Your task to perform on an android device: Search for the best-rated coffee table on Crate & Barrel Image 0: 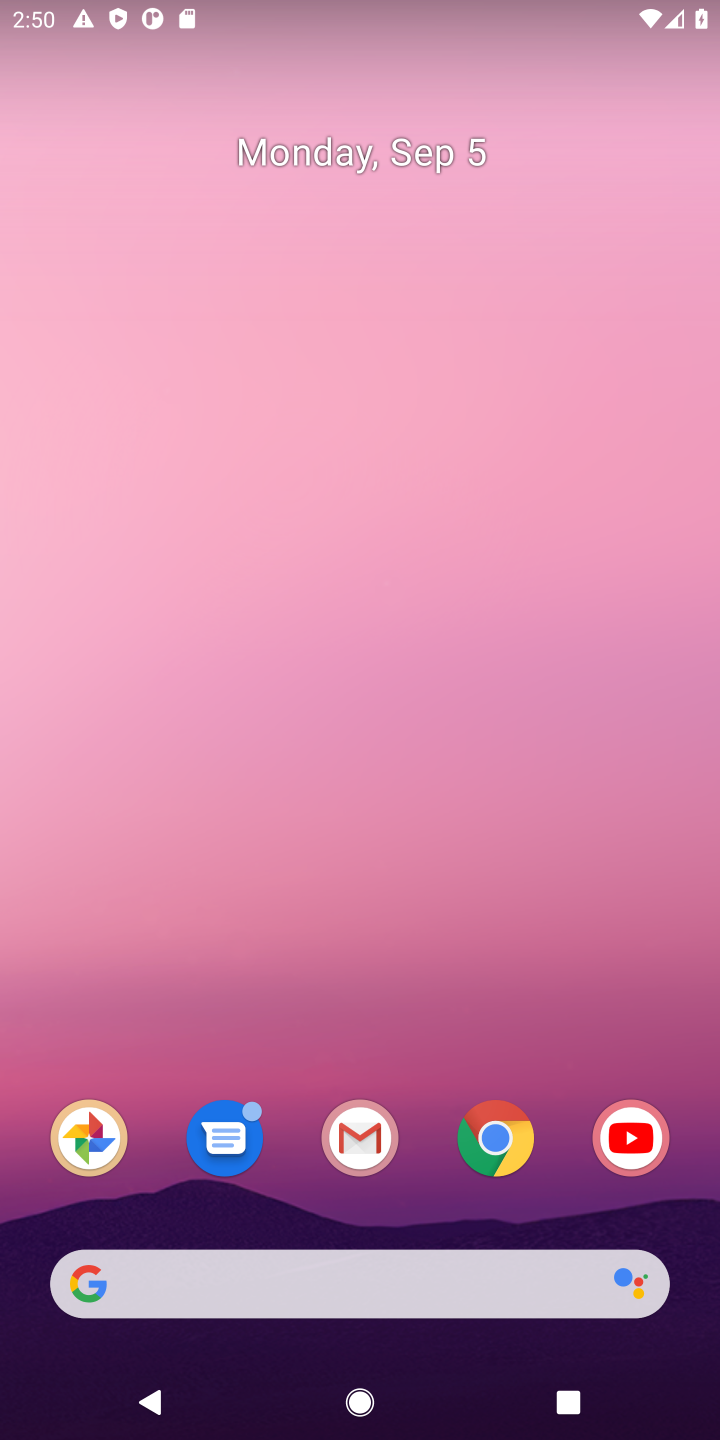
Step 0: click (497, 1141)
Your task to perform on an android device: Search for the best-rated coffee table on Crate & Barrel Image 1: 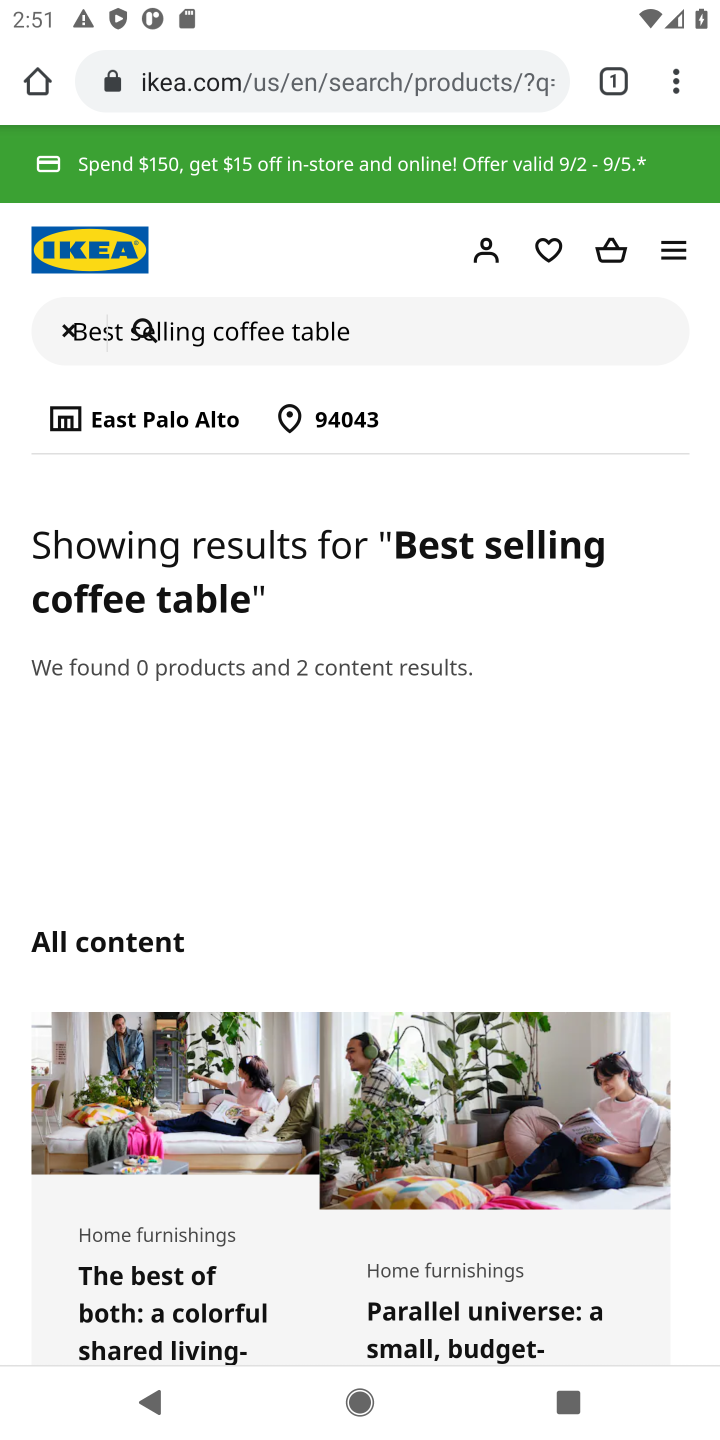
Step 1: click (410, 84)
Your task to perform on an android device: Search for the best-rated coffee table on Crate & Barrel Image 2: 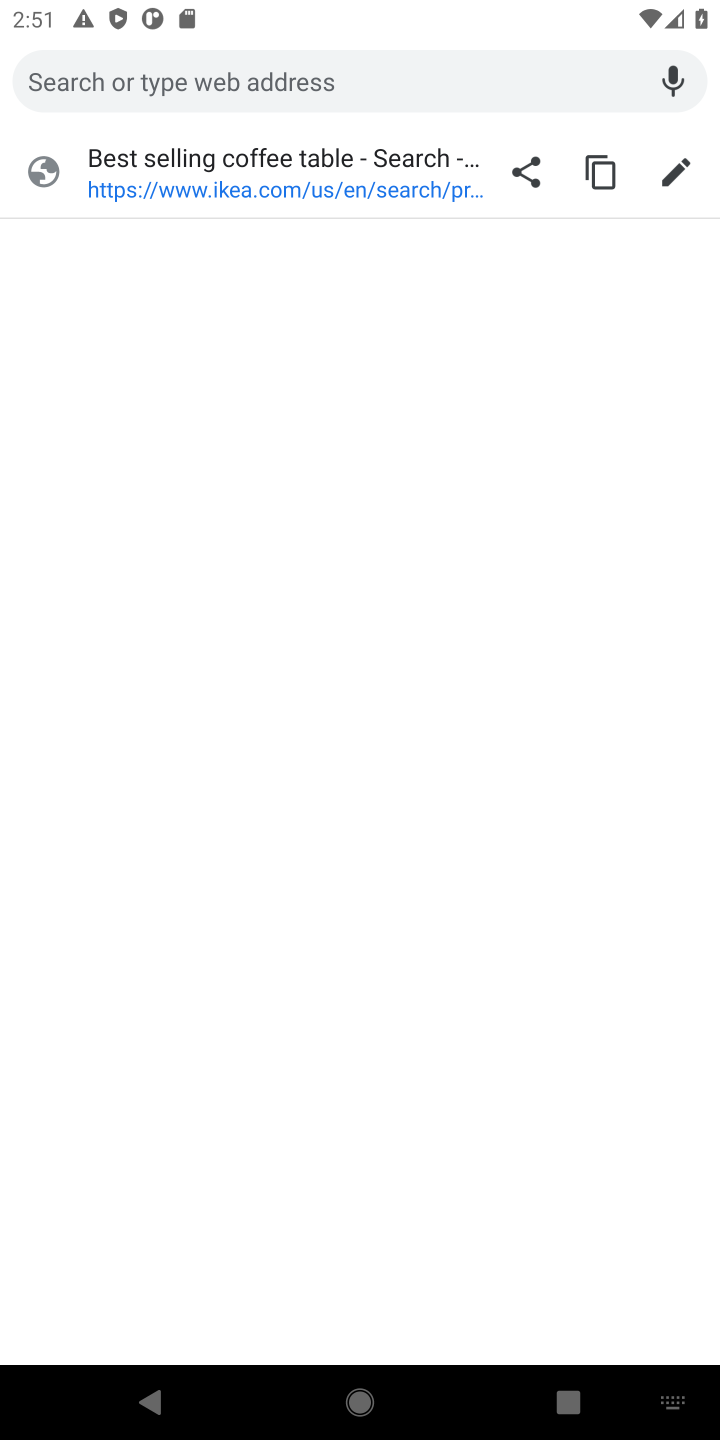
Step 2: type "Crate & Barrel"
Your task to perform on an android device: Search for the best-rated coffee table on Crate & Barrel Image 3: 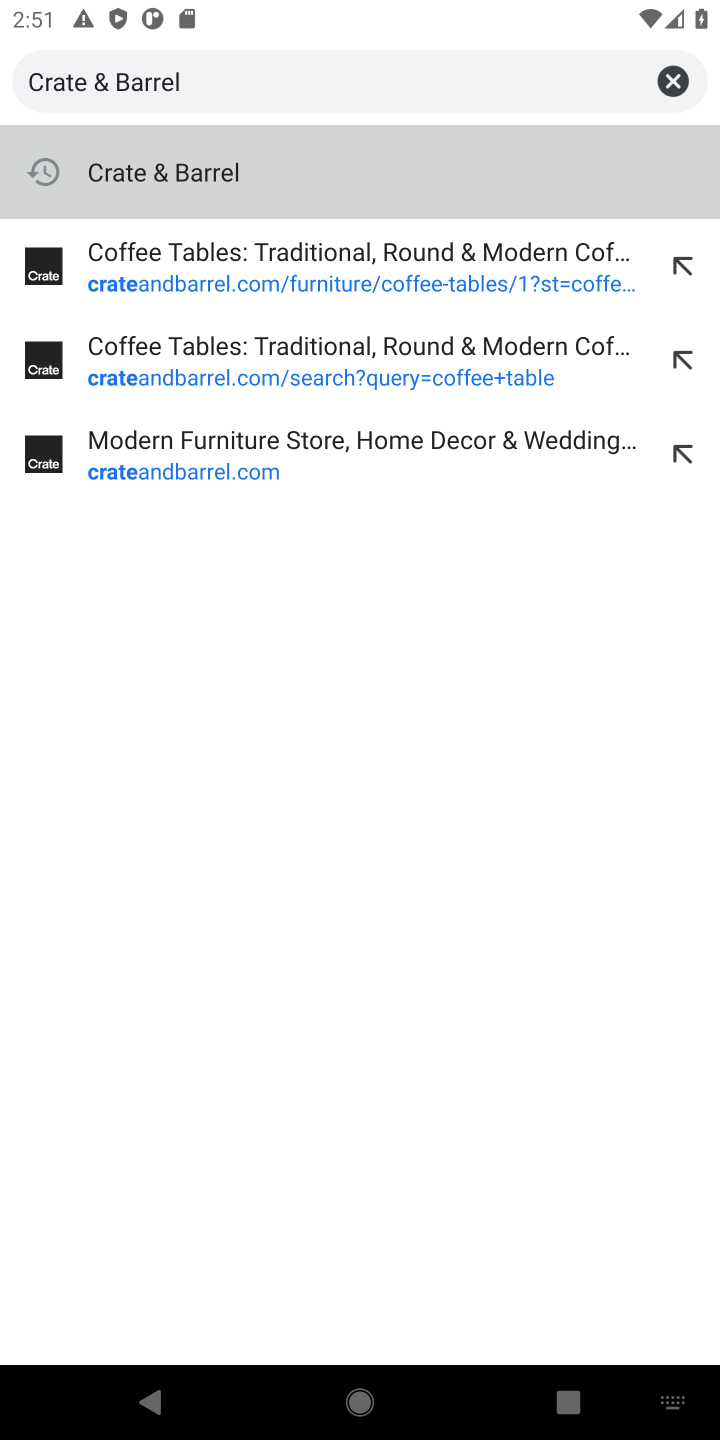
Step 3: click (410, 191)
Your task to perform on an android device: Search for the best-rated coffee table on Crate & Barrel Image 4: 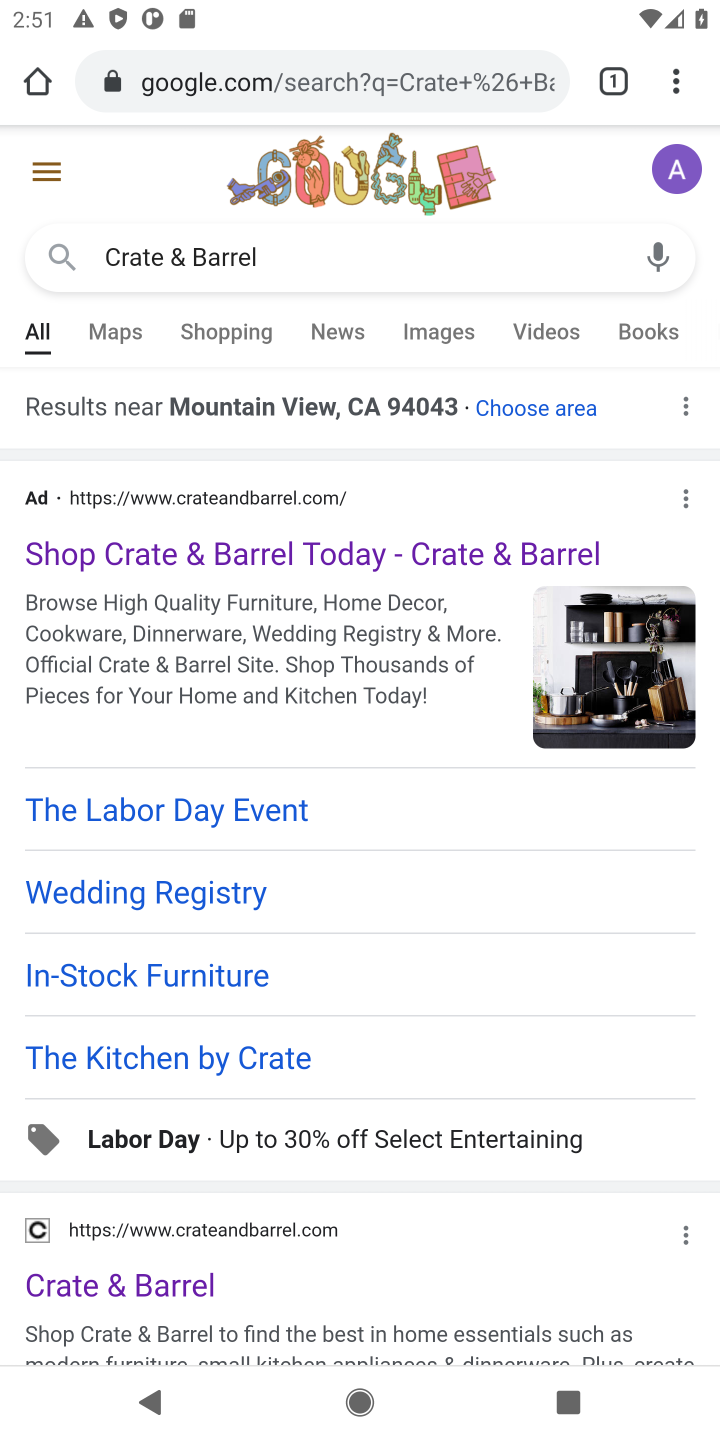
Step 4: click (255, 1298)
Your task to perform on an android device: Search for the best-rated coffee table on Crate & Barrel Image 5: 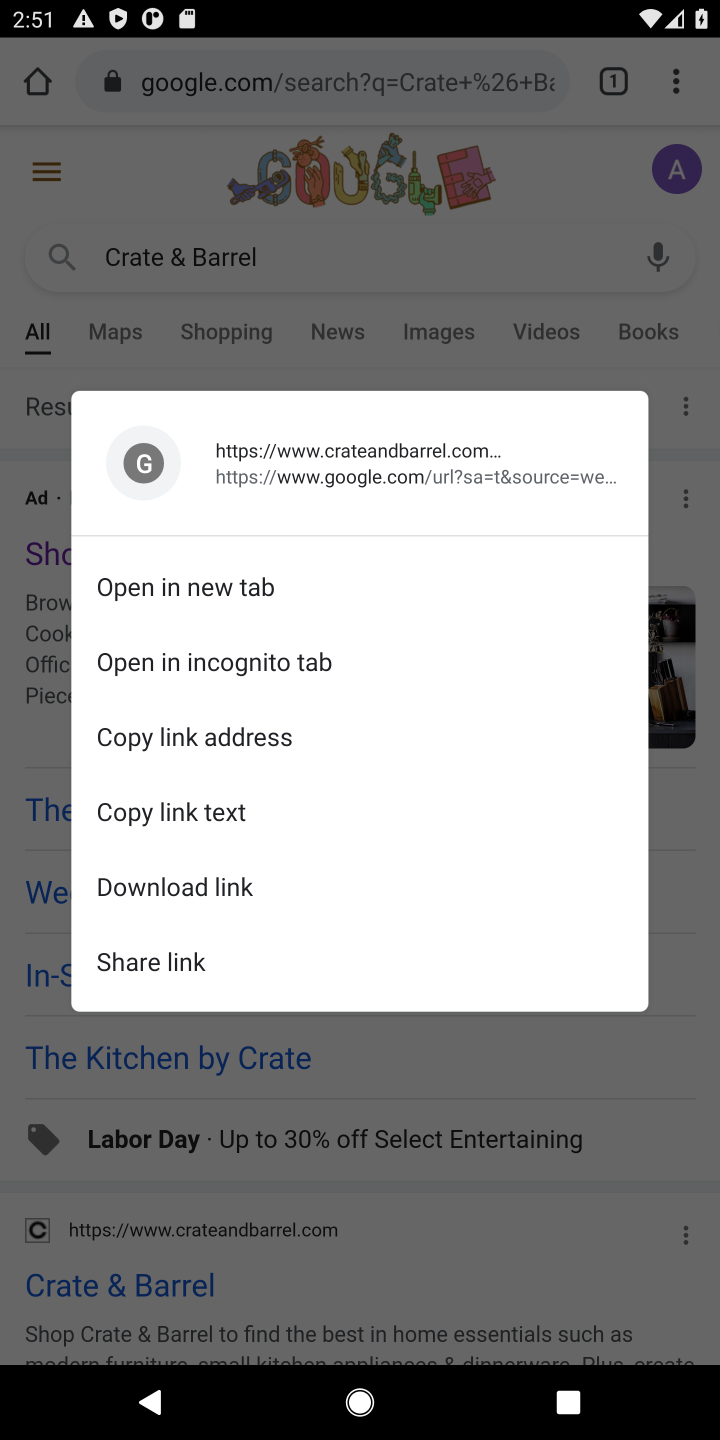
Step 5: click (256, 1295)
Your task to perform on an android device: Search for the best-rated coffee table on Crate & Barrel Image 6: 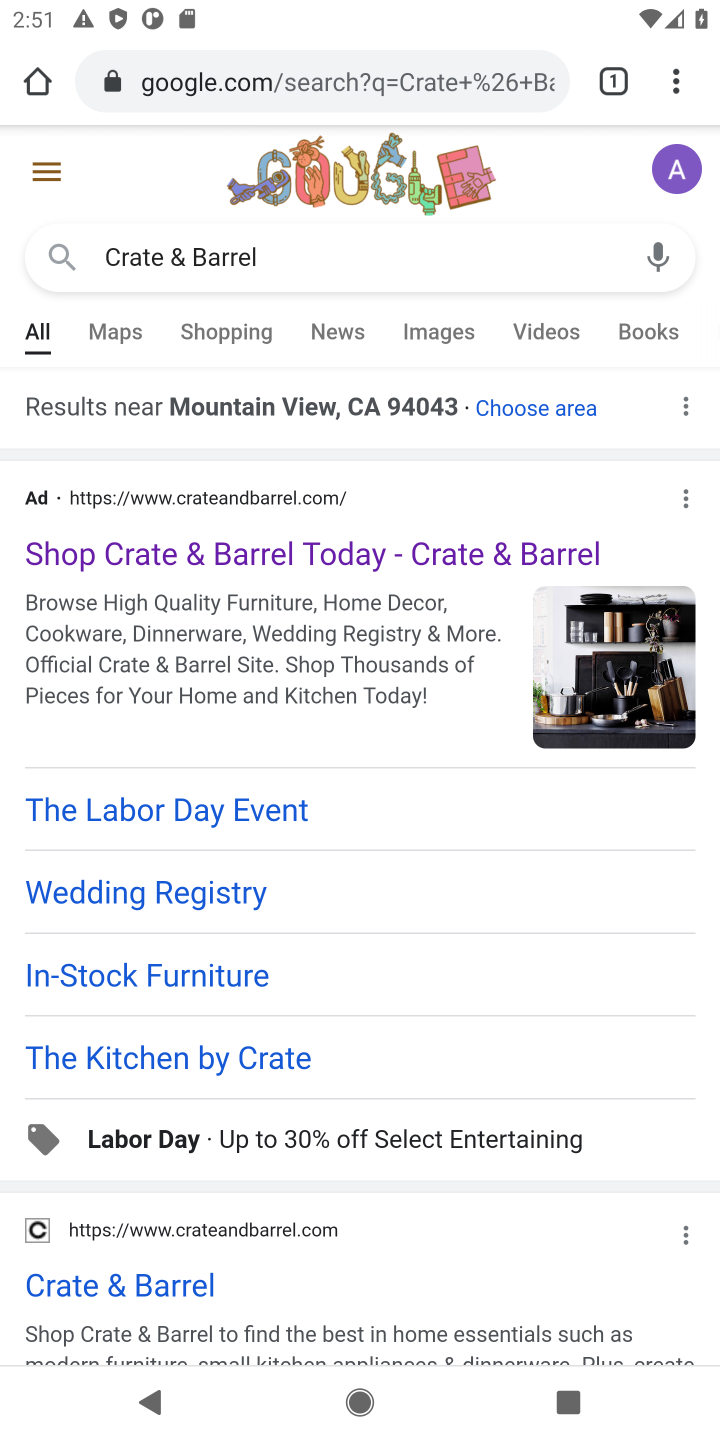
Step 6: click (256, 1295)
Your task to perform on an android device: Search for the best-rated coffee table on Crate & Barrel Image 7: 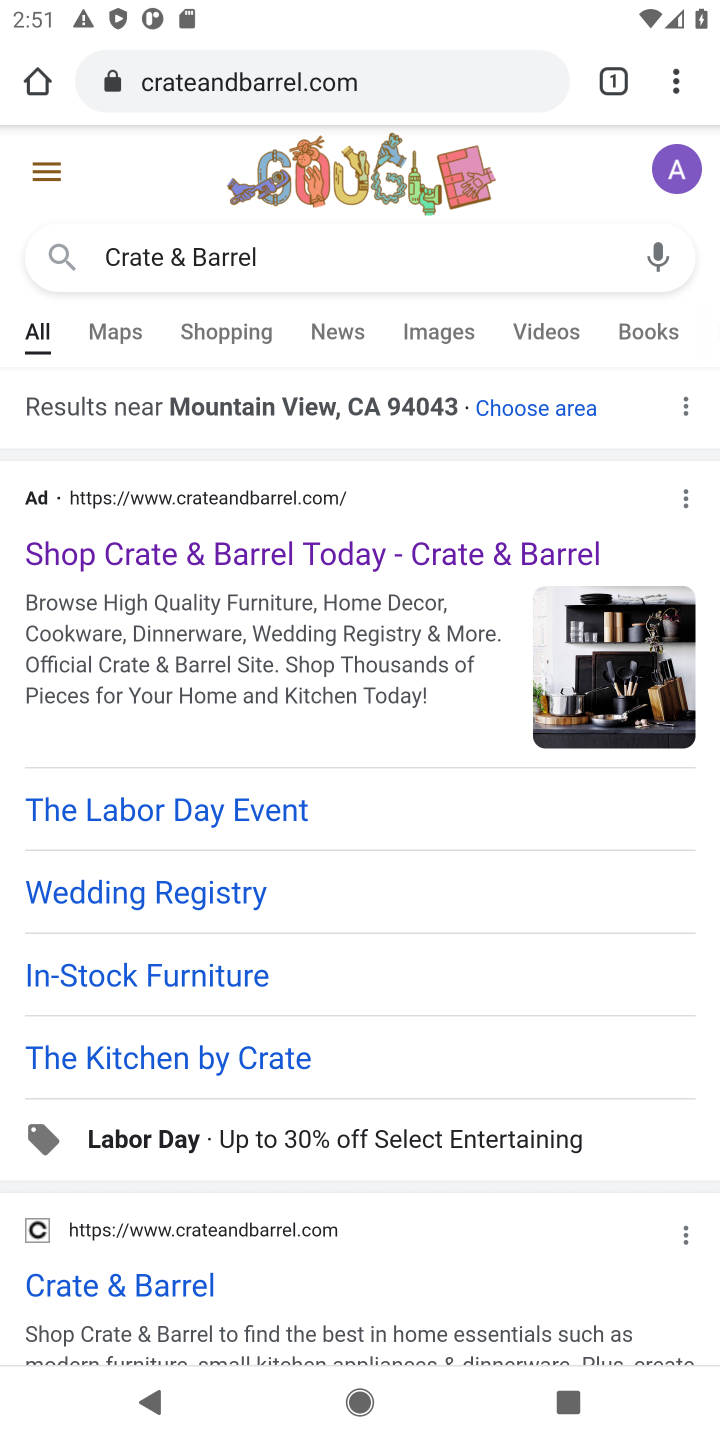
Step 7: click (151, 1306)
Your task to perform on an android device: Search for the best-rated coffee table on Crate & Barrel Image 8: 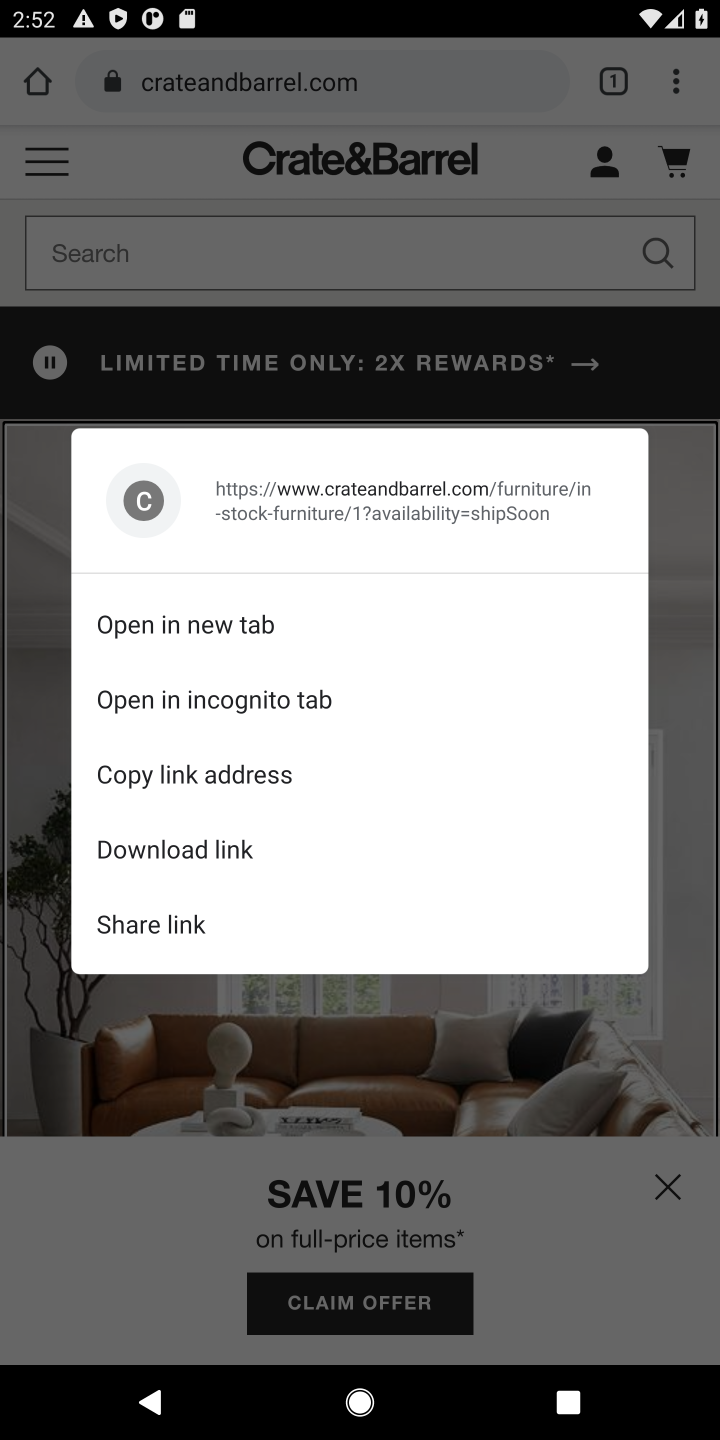
Step 8: click (388, 254)
Your task to perform on an android device: Search for the best-rated coffee table on Crate & Barrel Image 9: 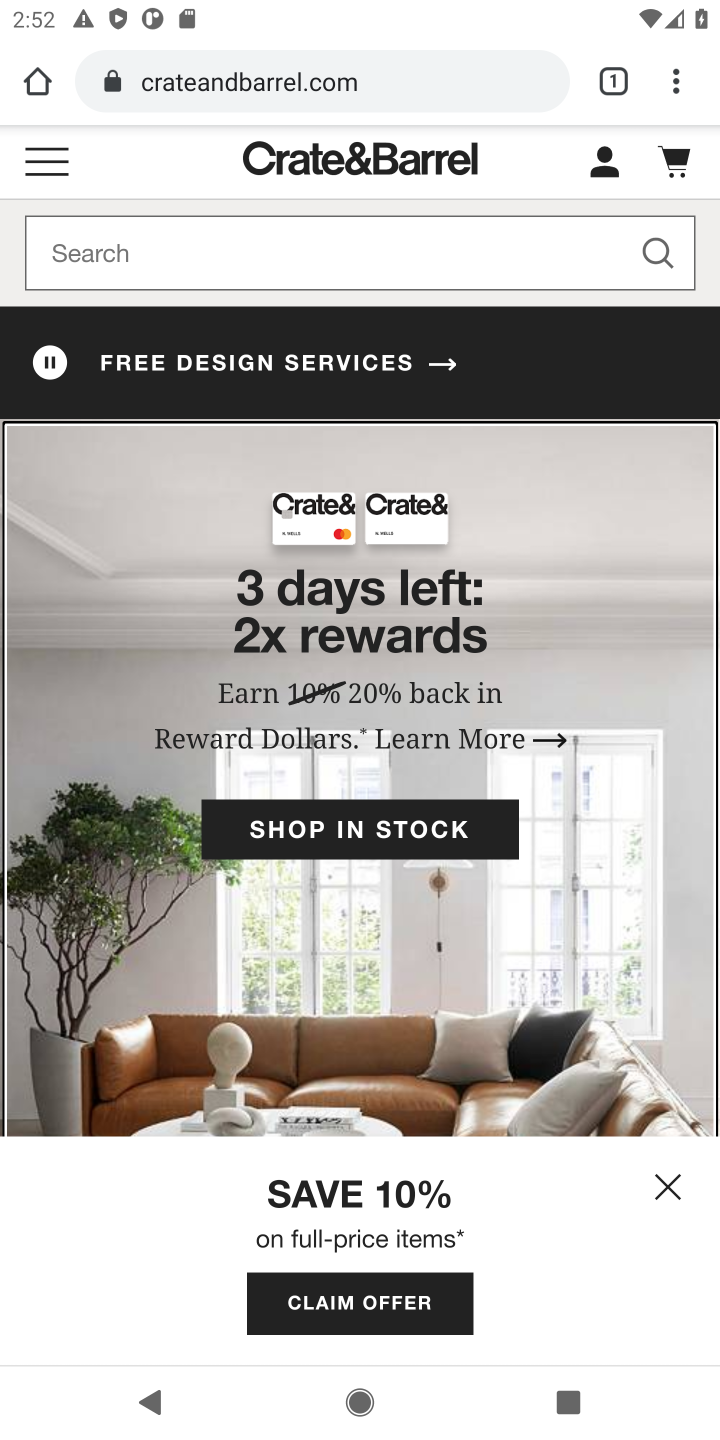
Step 9: click (114, 251)
Your task to perform on an android device: Search for the best-rated coffee table on Crate & Barrel Image 10: 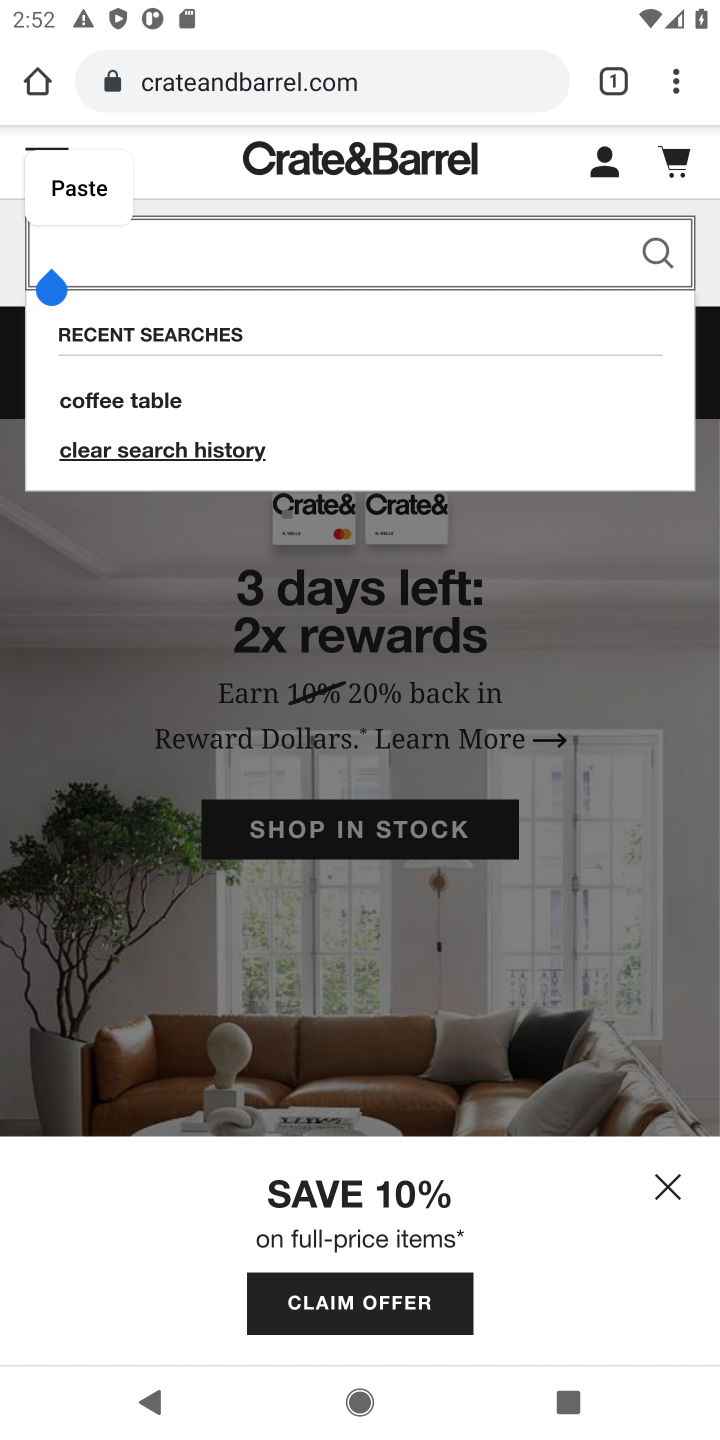
Step 10: type "best-rated coffee table"
Your task to perform on an android device: Search for the best-rated coffee table on Crate & Barrel Image 11: 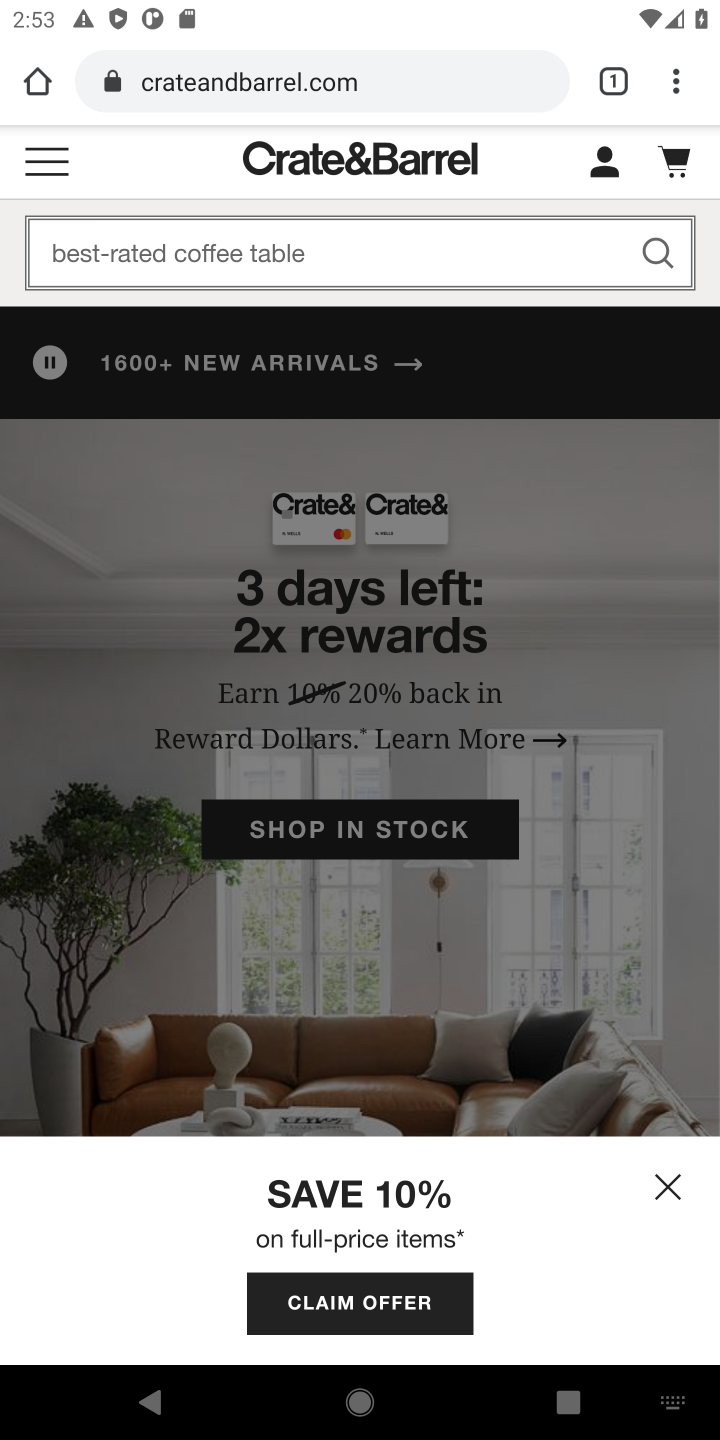
Step 11: click (658, 261)
Your task to perform on an android device: Search for the best-rated coffee table on Crate & Barrel Image 12: 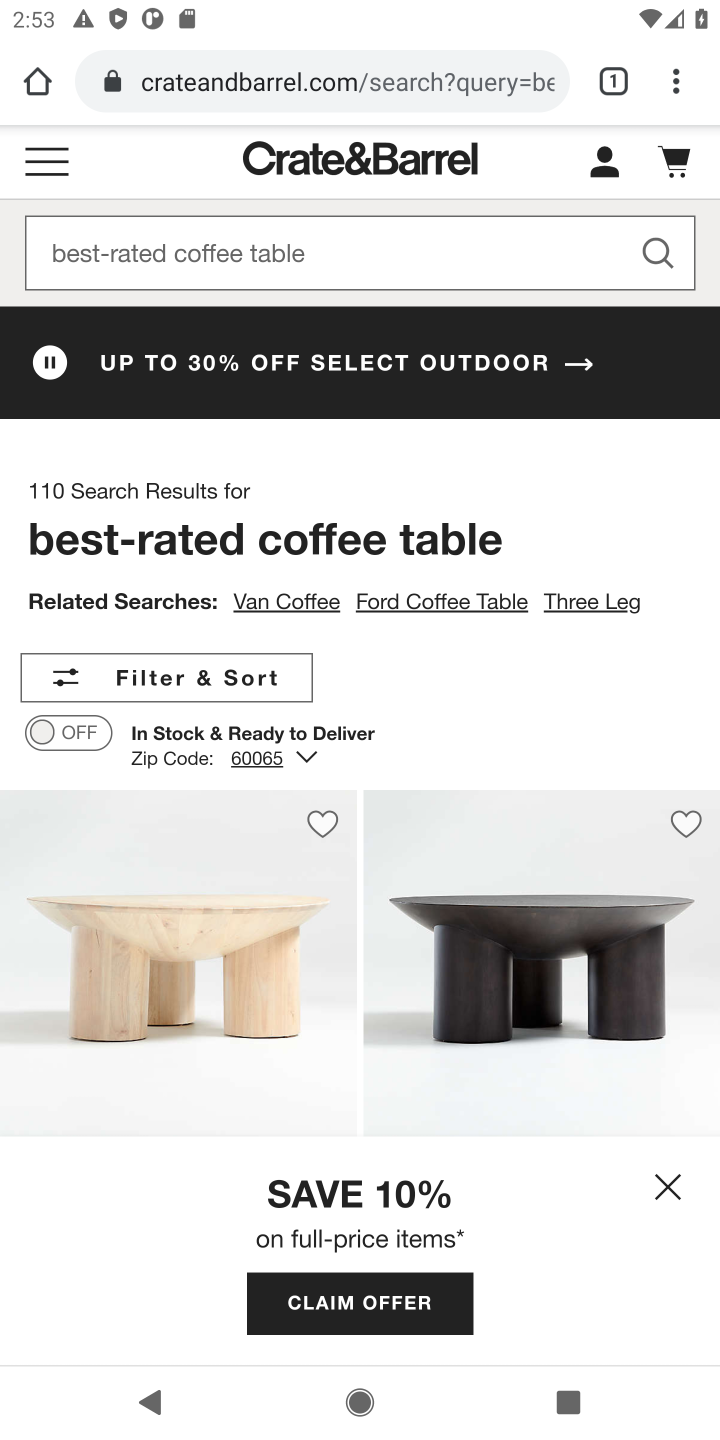
Step 12: task complete